Your task to perform on an android device: Open accessibility settings Image 0: 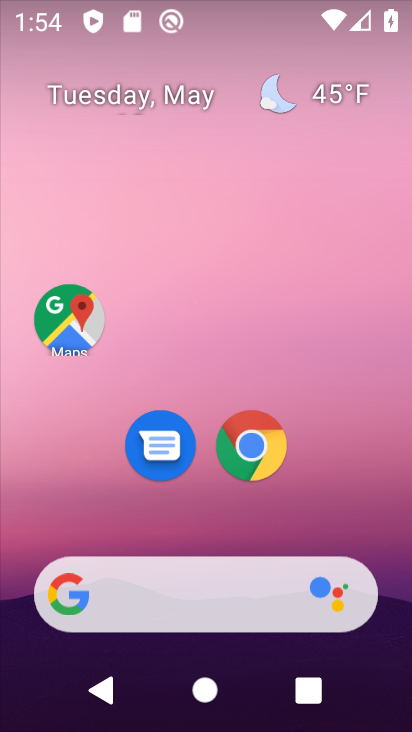
Step 0: drag from (209, 515) to (211, 51)
Your task to perform on an android device: Open accessibility settings Image 1: 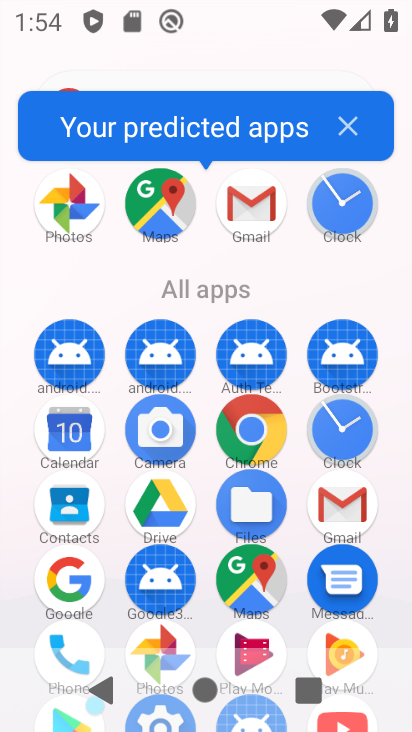
Step 1: drag from (201, 539) to (200, 135)
Your task to perform on an android device: Open accessibility settings Image 2: 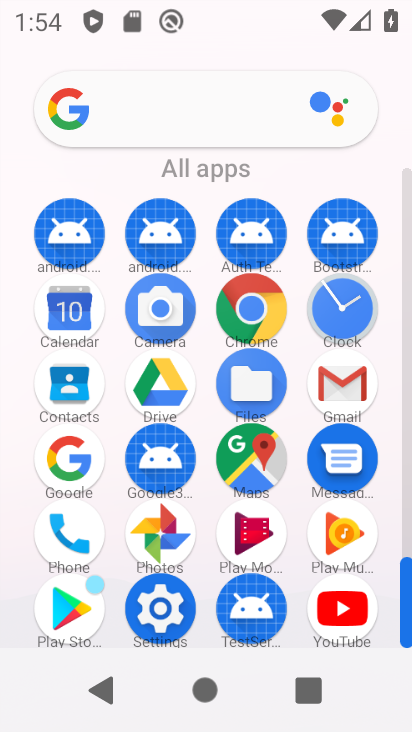
Step 2: click (158, 610)
Your task to perform on an android device: Open accessibility settings Image 3: 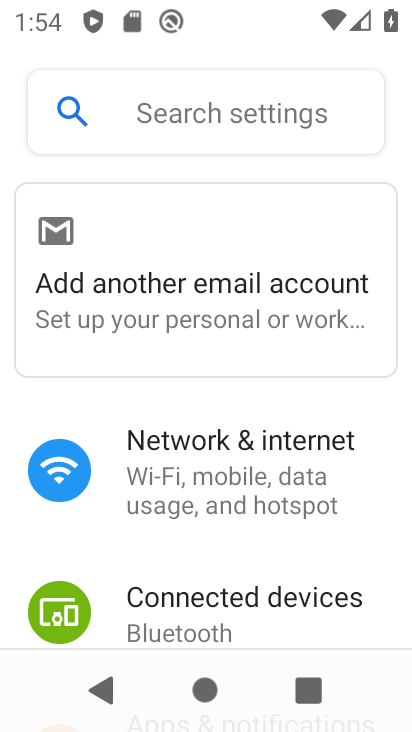
Step 3: drag from (233, 562) to (285, 70)
Your task to perform on an android device: Open accessibility settings Image 4: 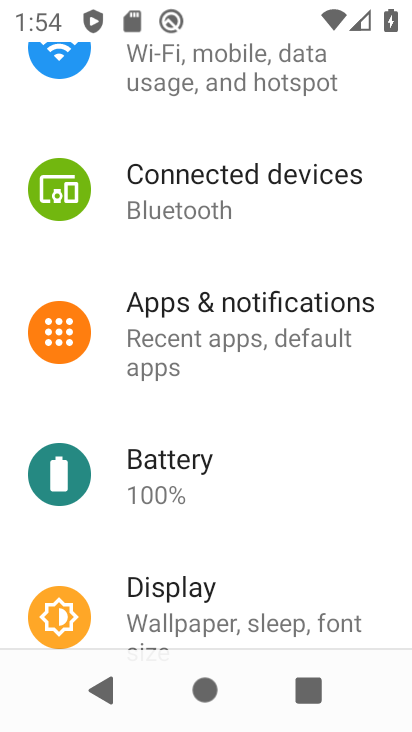
Step 4: drag from (232, 561) to (178, 135)
Your task to perform on an android device: Open accessibility settings Image 5: 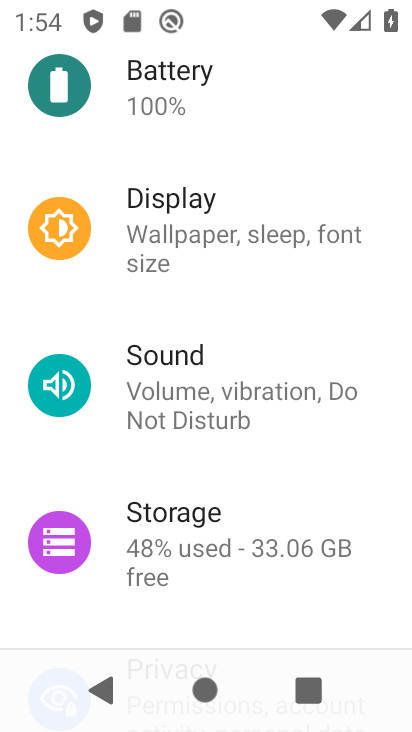
Step 5: drag from (222, 573) to (213, 71)
Your task to perform on an android device: Open accessibility settings Image 6: 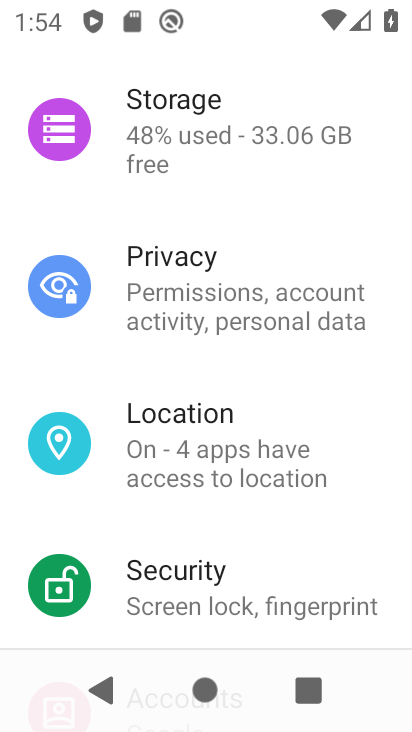
Step 6: drag from (260, 558) to (198, 46)
Your task to perform on an android device: Open accessibility settings Image 7: 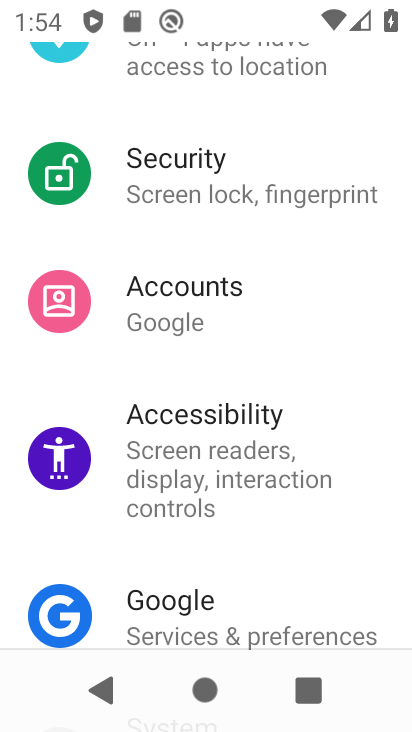
Step 7: click (178, 451)
Your task to perform on an android device: Open accessibility settings Image 8: 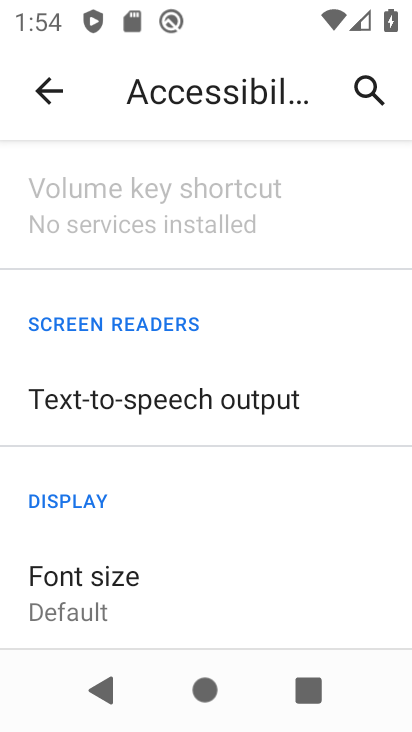
Step 8: task complete